Your task to perform on an android device: What's on my calendar today? Image 0: 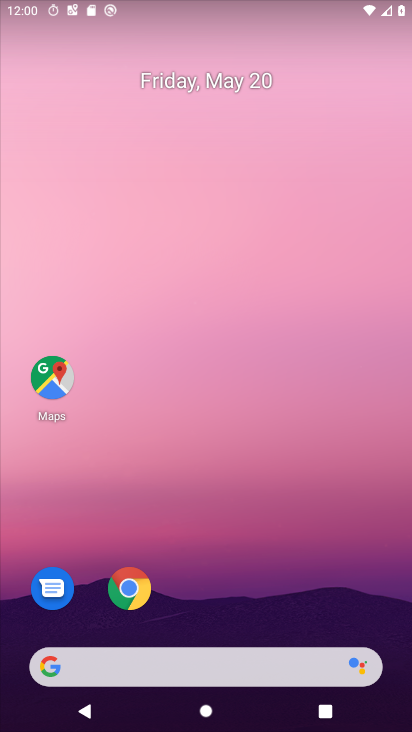
Step 0: drag from (237, 667) to (323, 132)
Your task to perform on an android device: What's on my calendar today? Image 1: 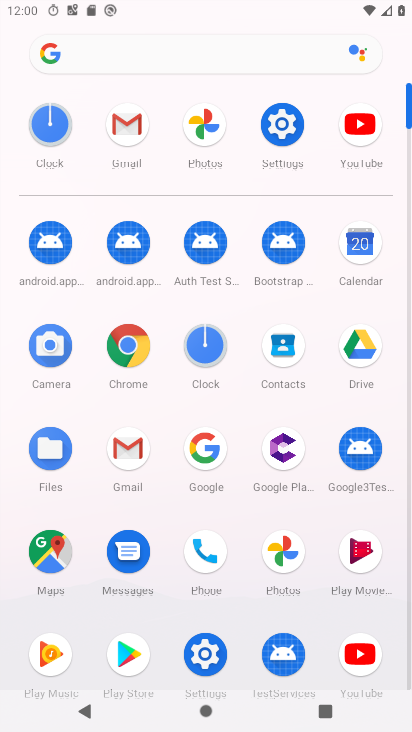
Step 1: click (351, 253)
Your task to perform on an android device: What's on my calendar today? Image 2: 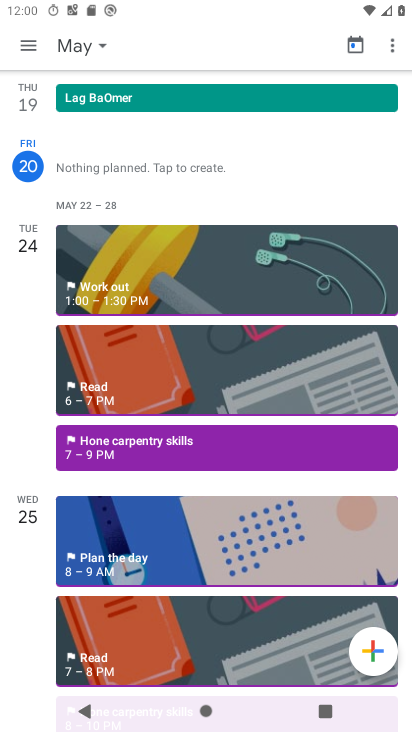
Step 2: click (90, 167)
Your task to perform on an android device: What's on my calendar today? Image 3: 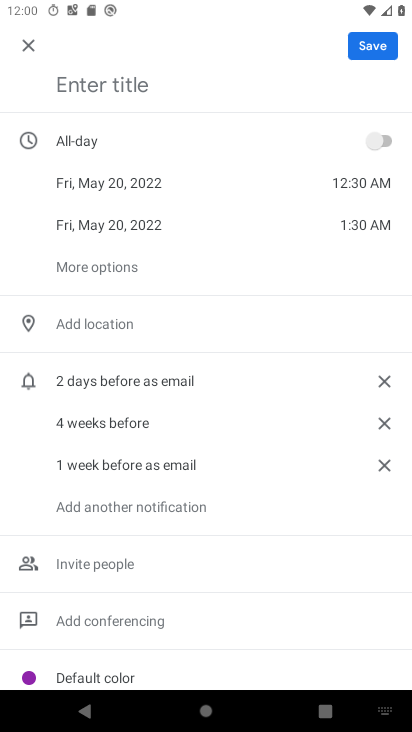
Step 3: task complete